Your task to perform on an android device: open app "Facebook Lite" Image 0: 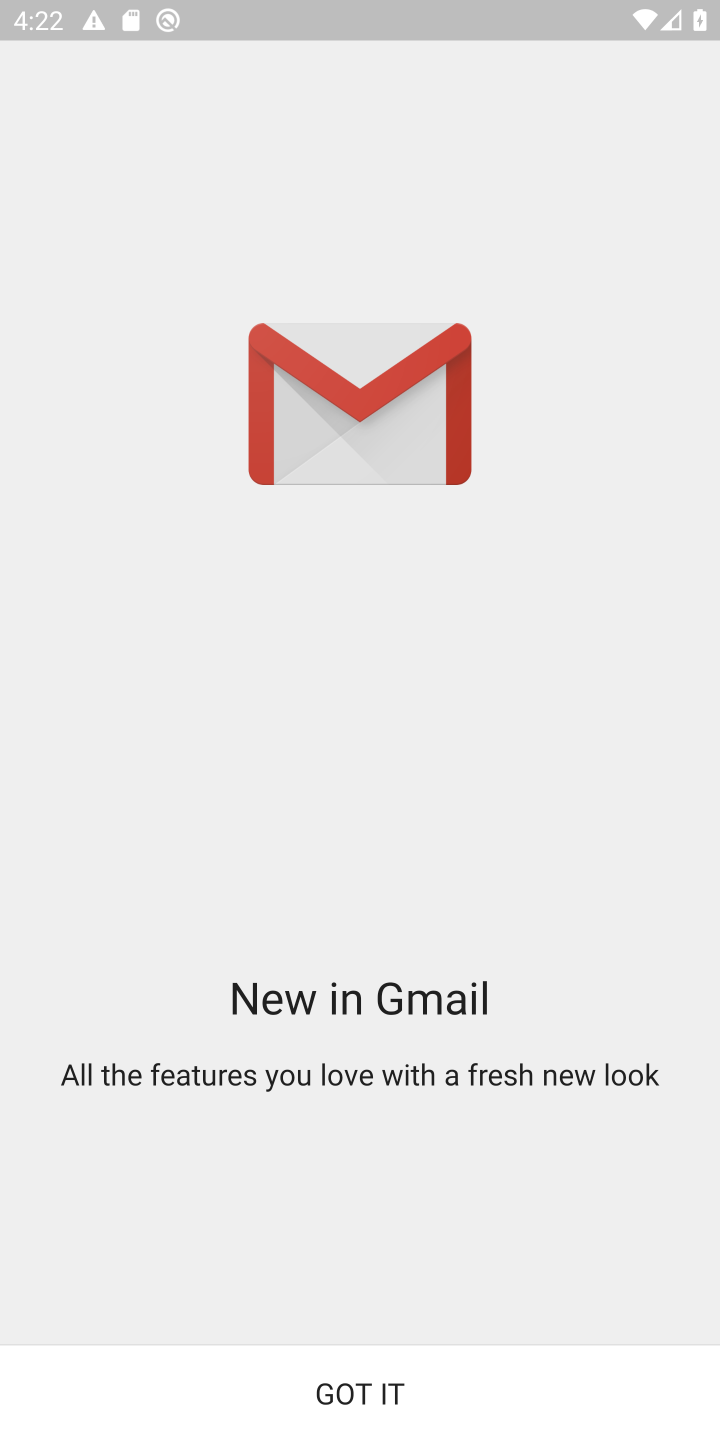
Step 0: press home button
Your task to perform on an android device: open app "Facebook Lite" Image 1: 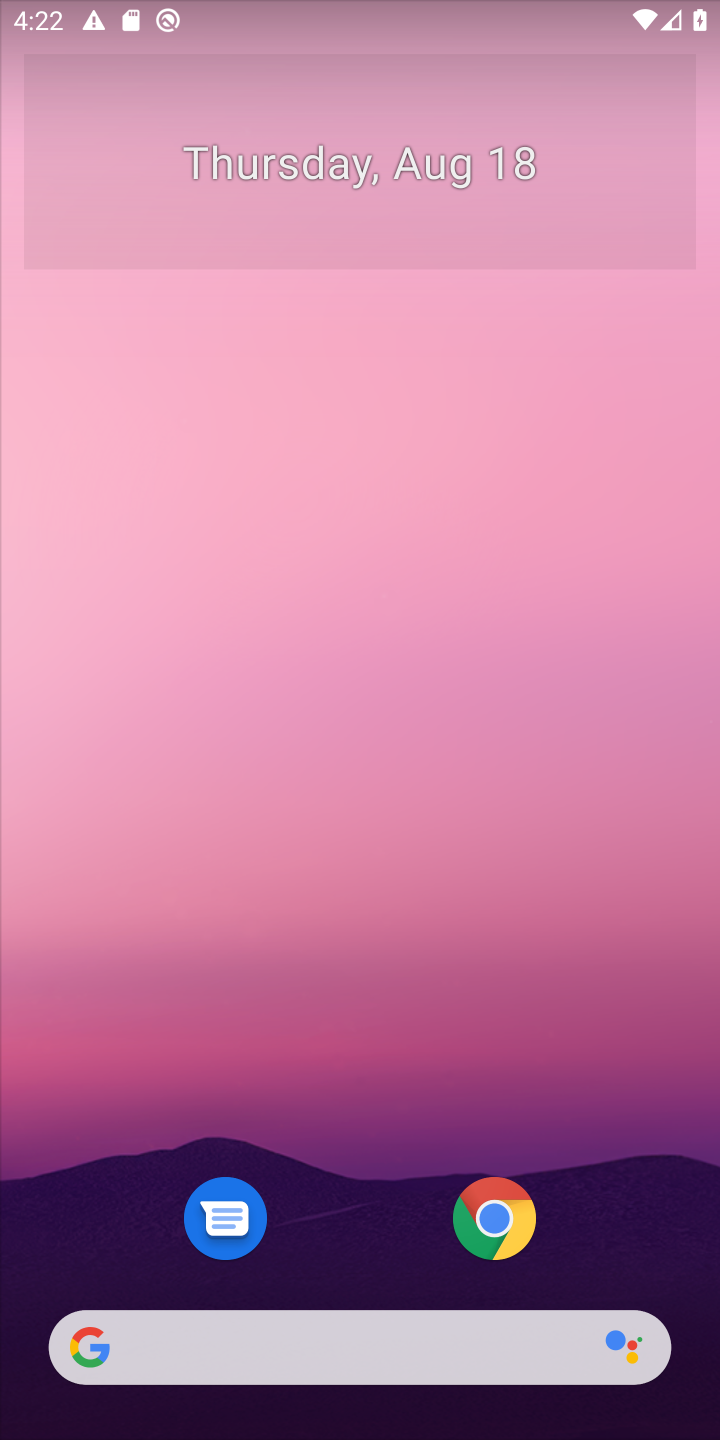
Step 1: drag from (308, 1101) to (311, 357)
Your task to perform on an android device: open app "Facebook Lite" Image 2: 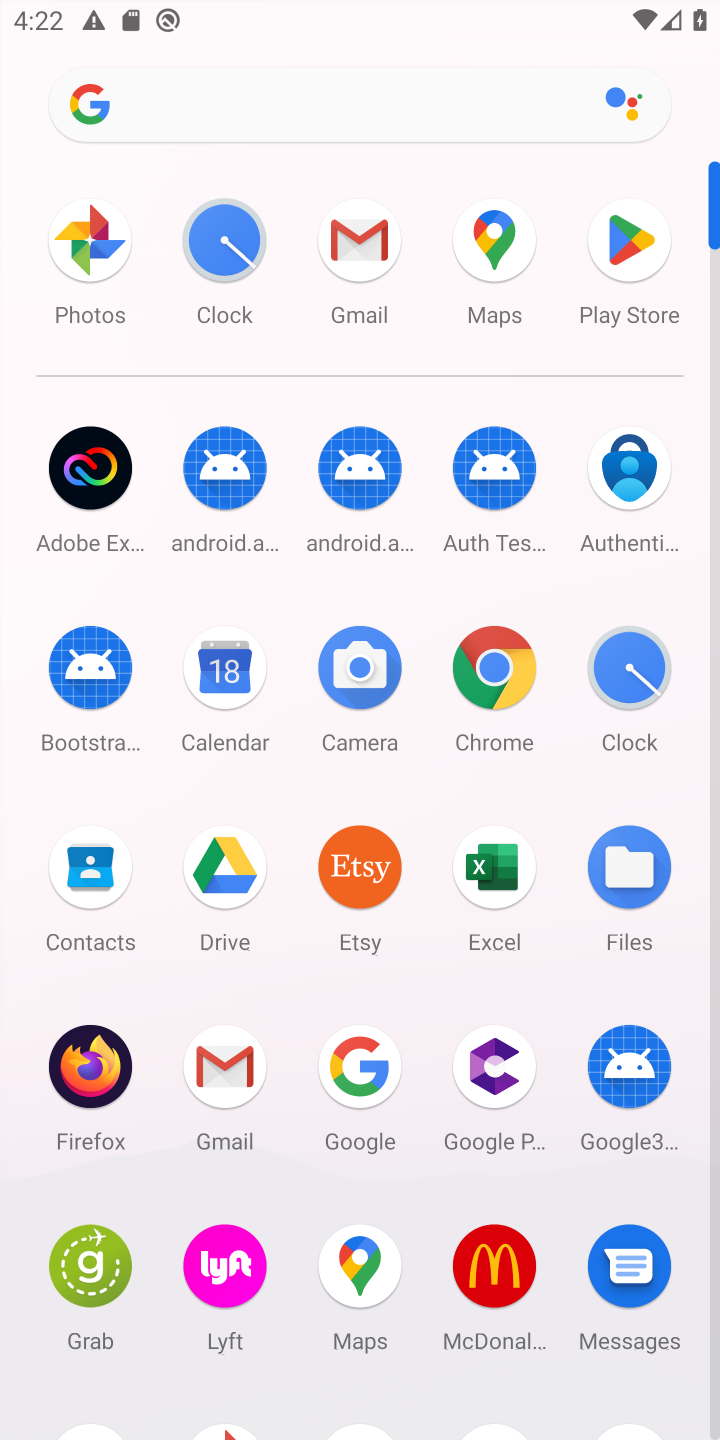
Step 2: click (620, 258)
Your task to perform on an android device: open app "Facebook Lite" Image 3: 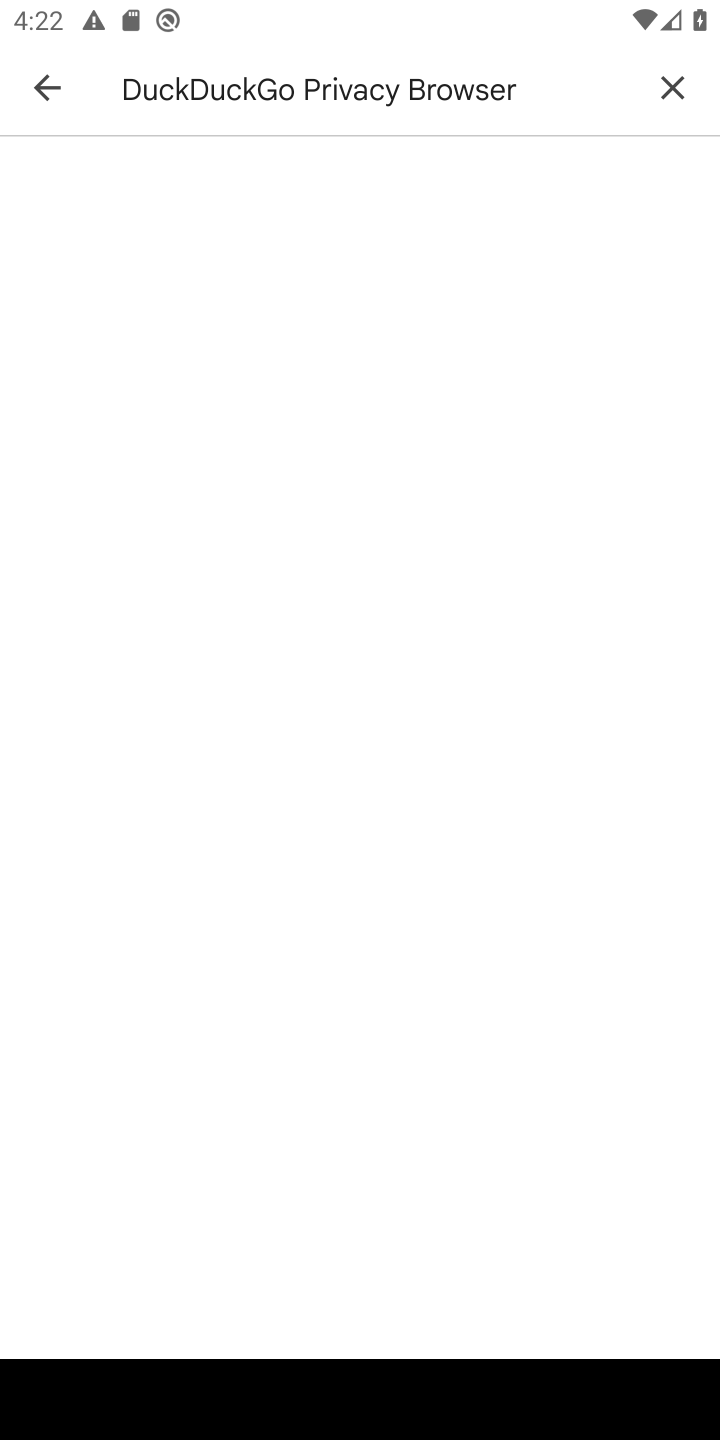
Step 3: click (667, 94)
Your task to perform on an android device: open app "Facebook Lite" Image 4: 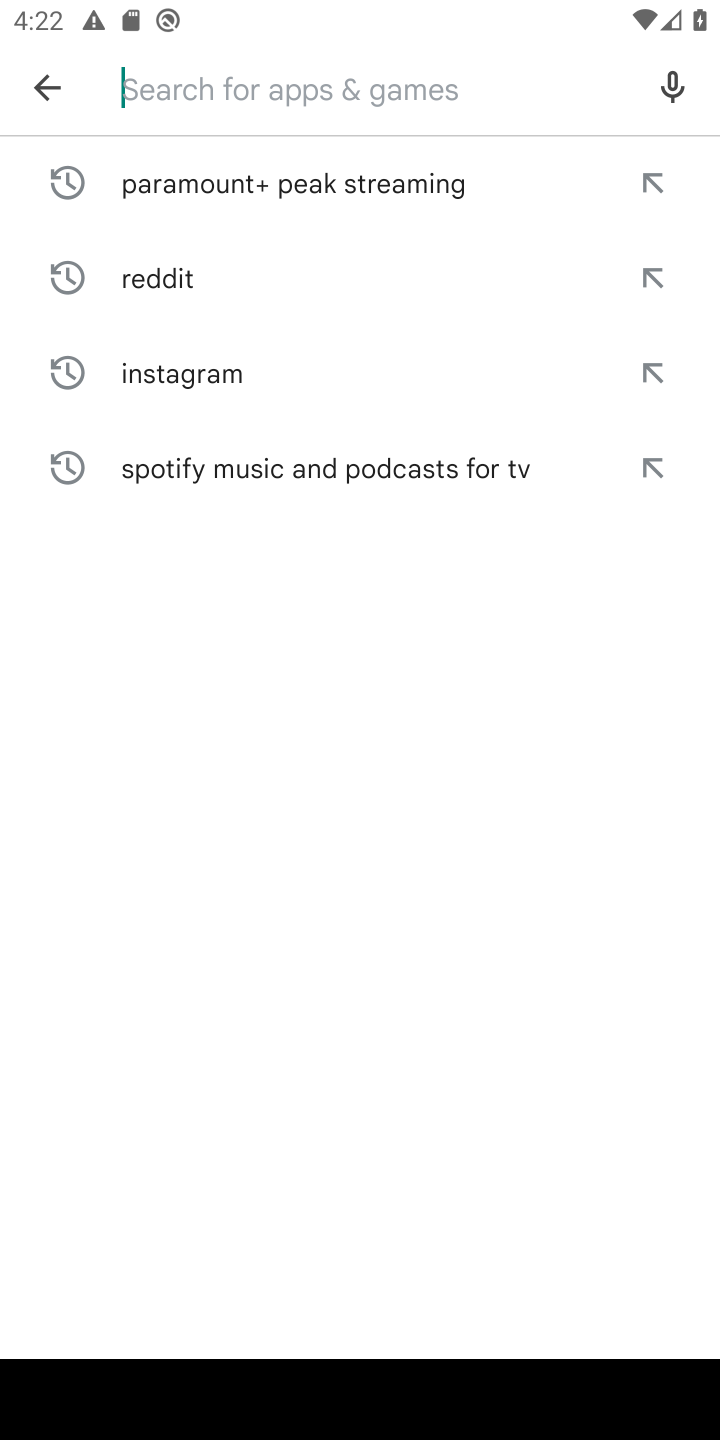
Step 4: type "Facebook Lite"
Your task to perform on an android device: open app "Facebook Lite" Image 5: 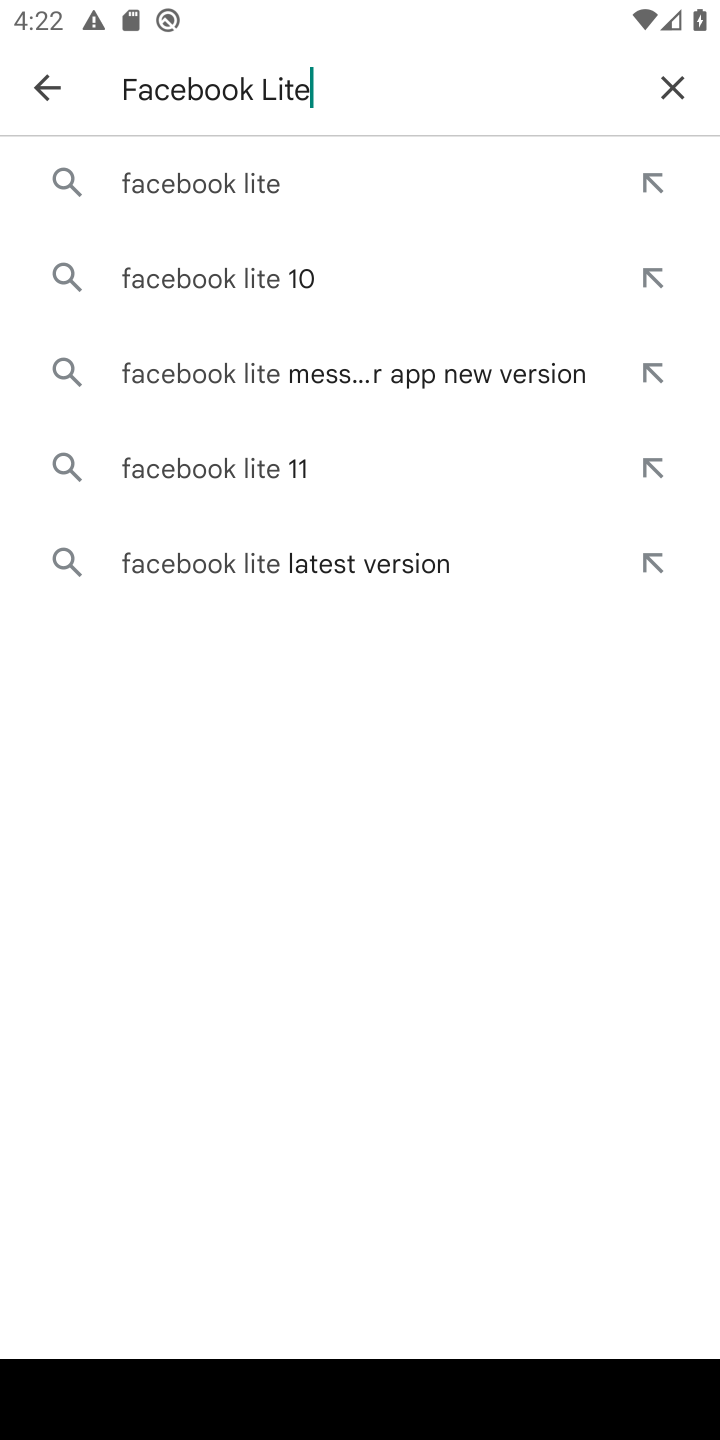
Step 5: click (245, 170)
Your task to perform on an android device: open app "Facebook Lite" Image 6: 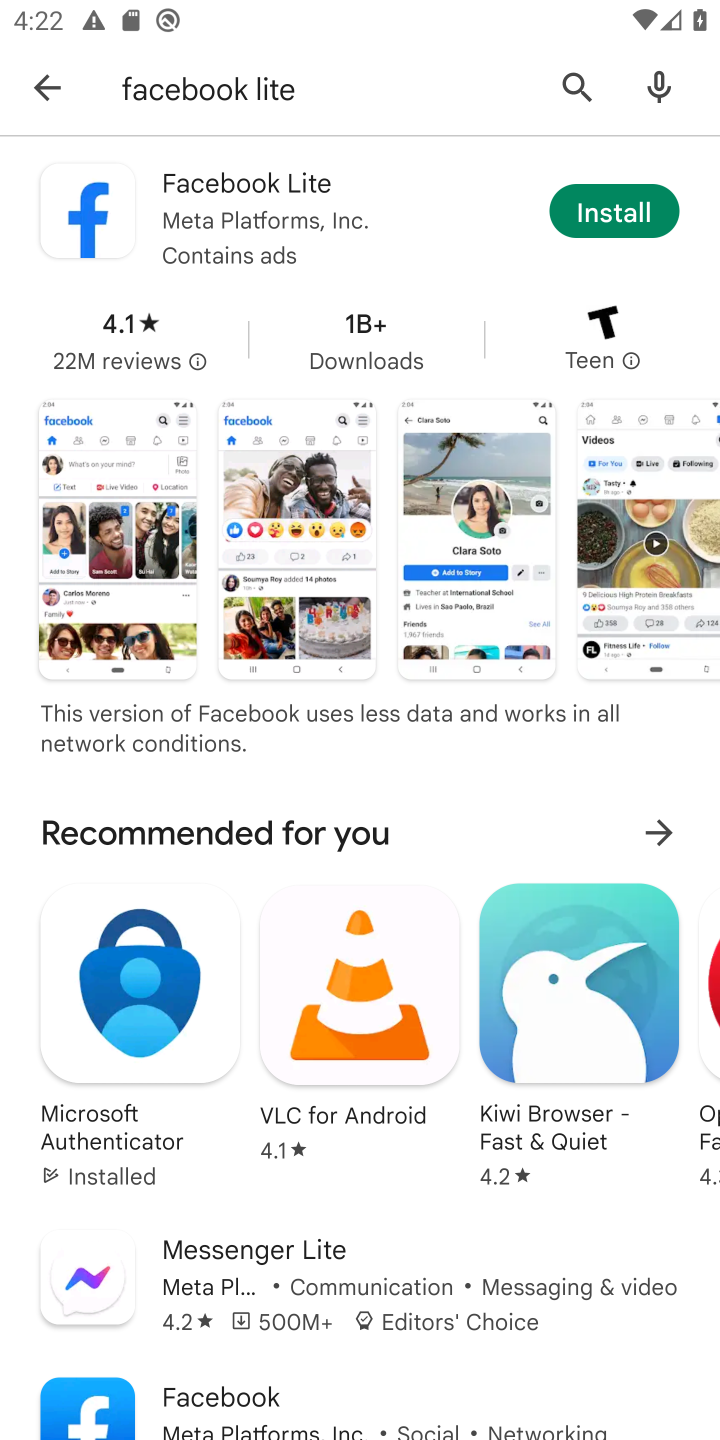
Step 6: task complete